Your task to perform on an android device: Open settings Image 0: 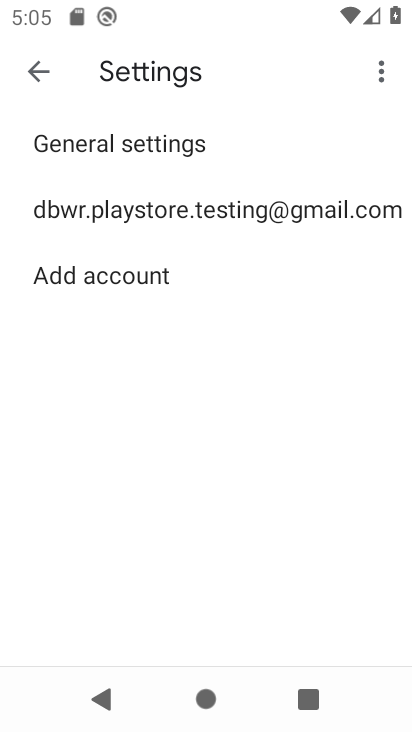
Step 0: press home button
Your task to perform on an android device: Open settings Image 1: 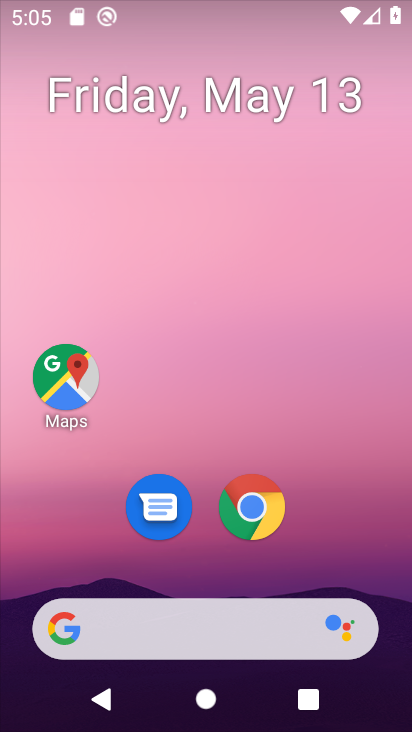
Step 1: drag from (320, 547) to (221, 27)
Your task to perform on an android device: Open settings Image 2: 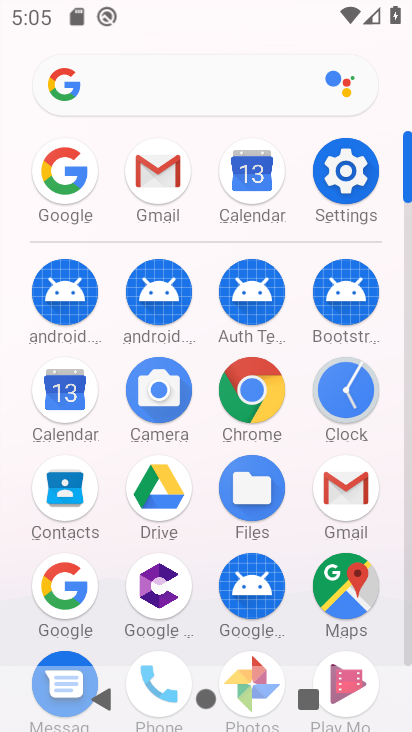
Step 2: click (343, 181)
Your task to perform on an android device: Open settings Image 3: 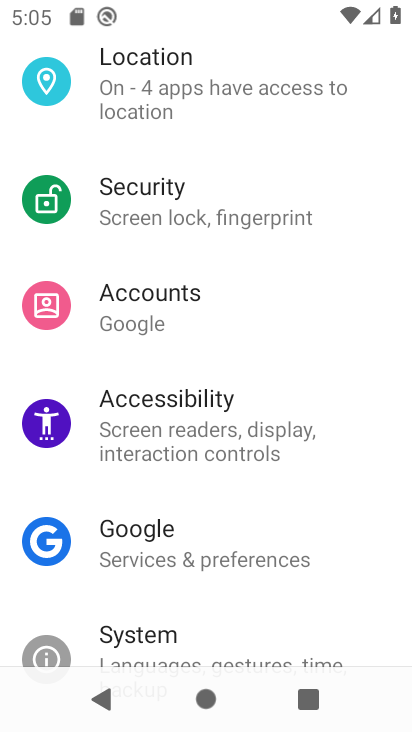
Step 3: task complete